Your task to perform on an android device: open app "Paramount+ | Peak Streaming" (install if not already installed) and go to login screen Image 0: 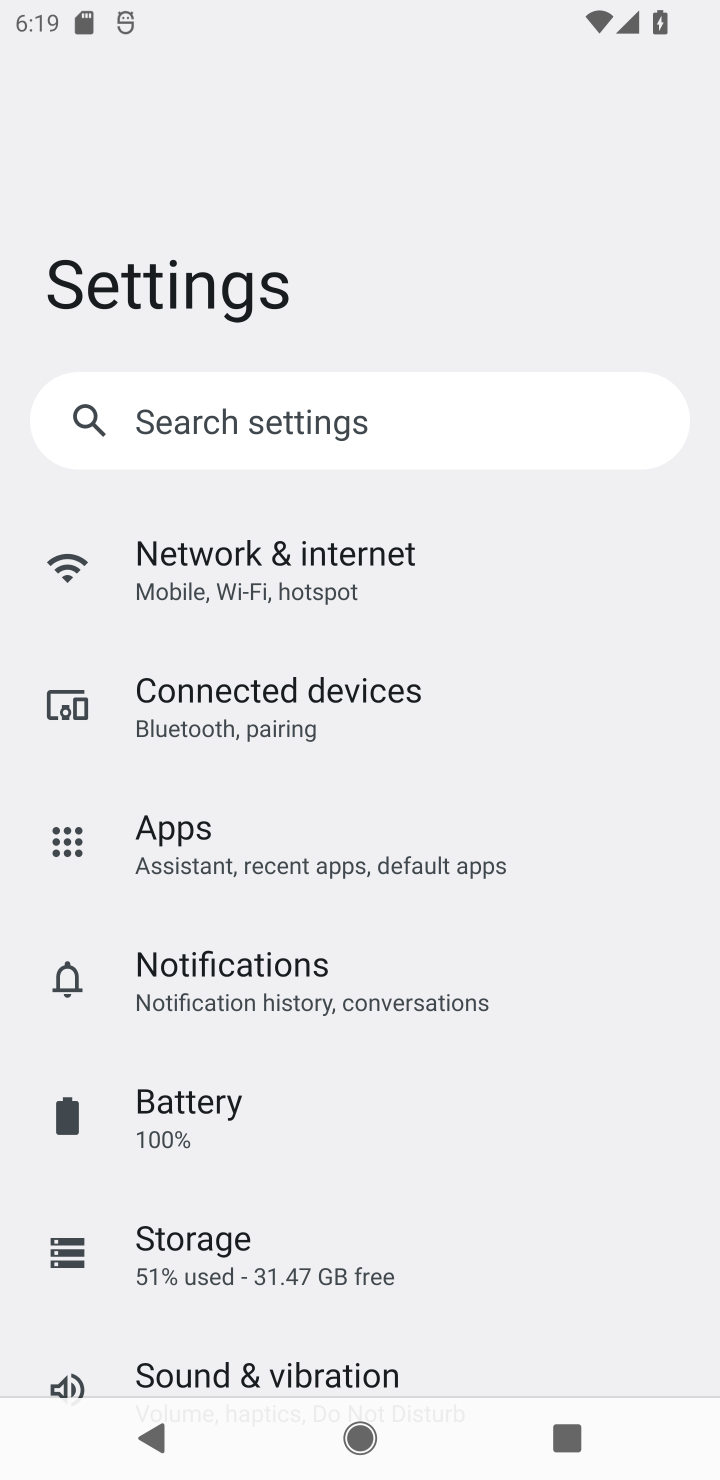
Step 0: press back button
Your task to perform on an android device: open app "Paramount+ | Peak Streaming" (install if not already installed) and go to login screen Image 1: 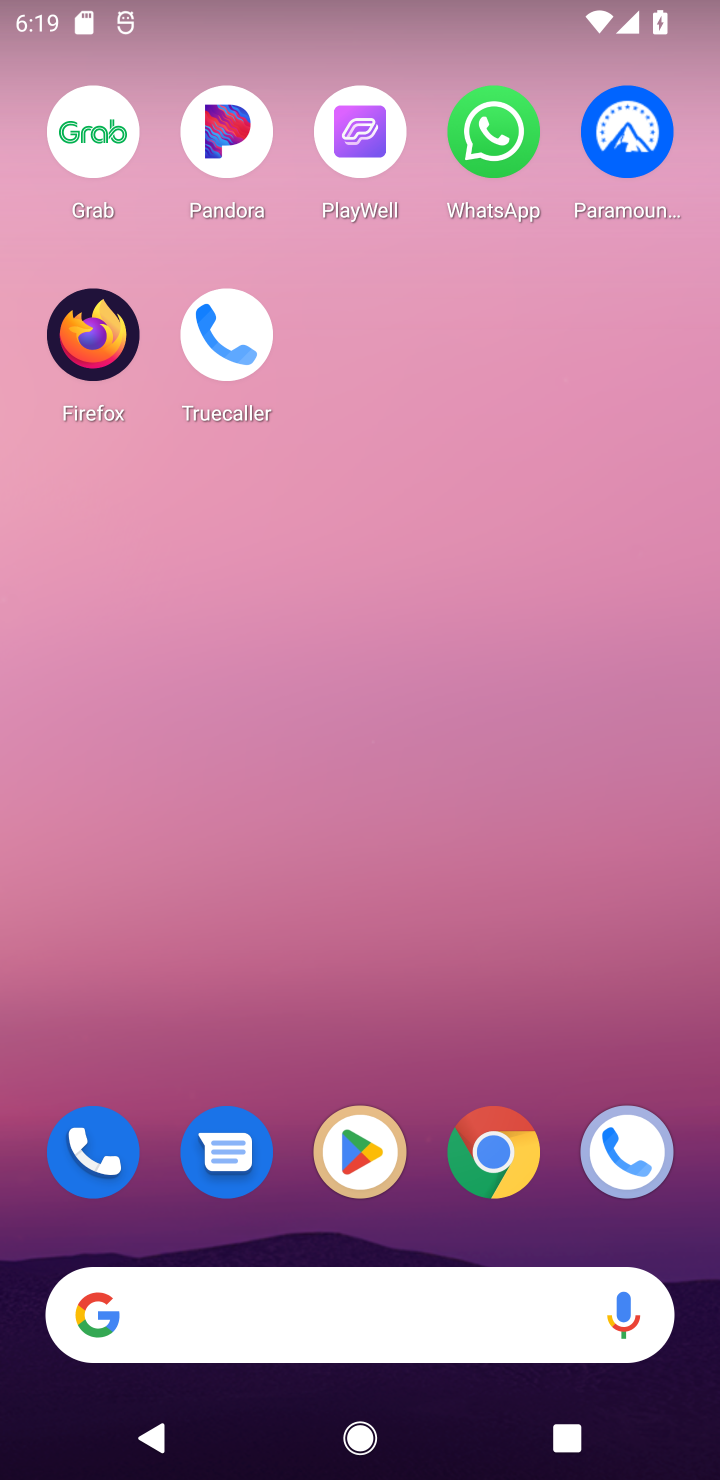
Step 1: click (371, 1159)
Your task to perform on an android device: open app "Paramount+ | Peak Streaming" (install if not already installed) and go to login screen Image 2: 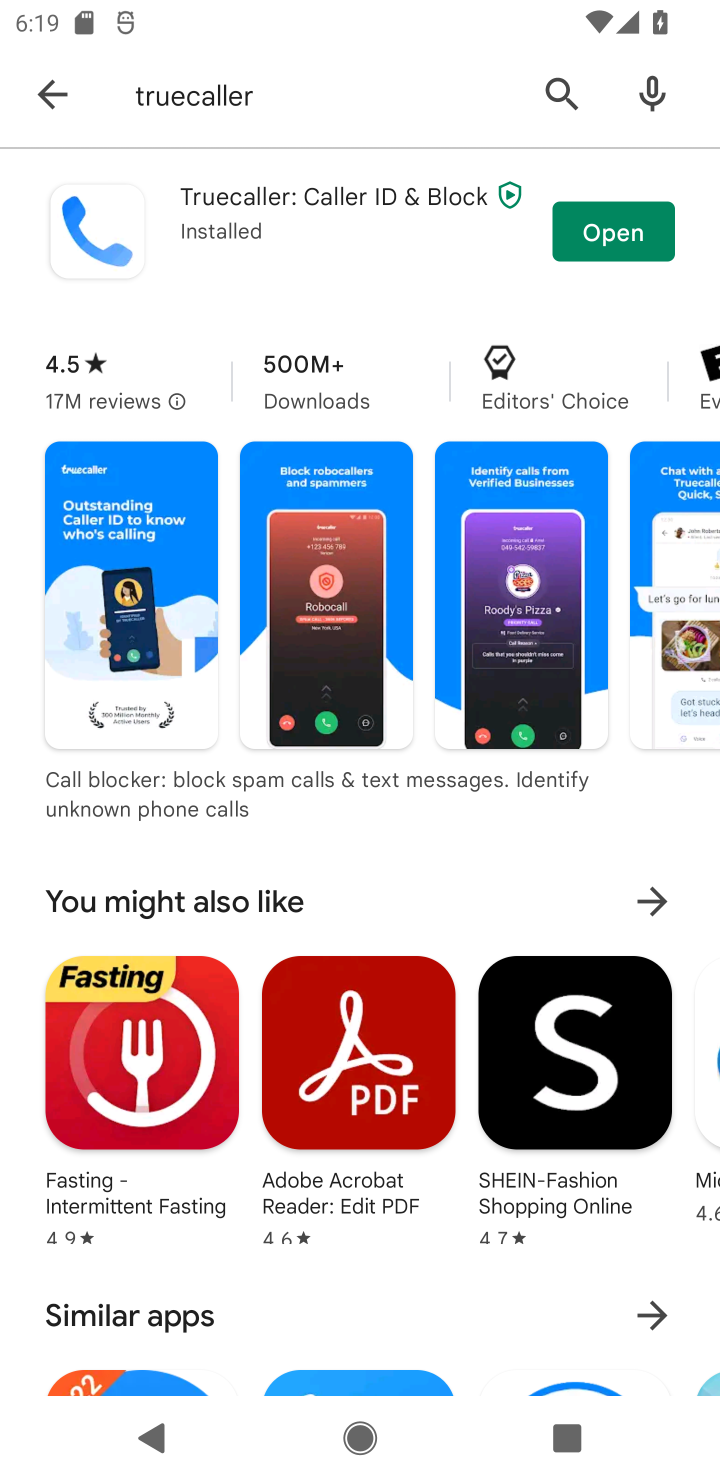
Step 2: click (557, 94)
Your task to perform on an android device: open app "Paramount+ | Peak Streaming" (install if not already installed) and go to login screen Image 3: 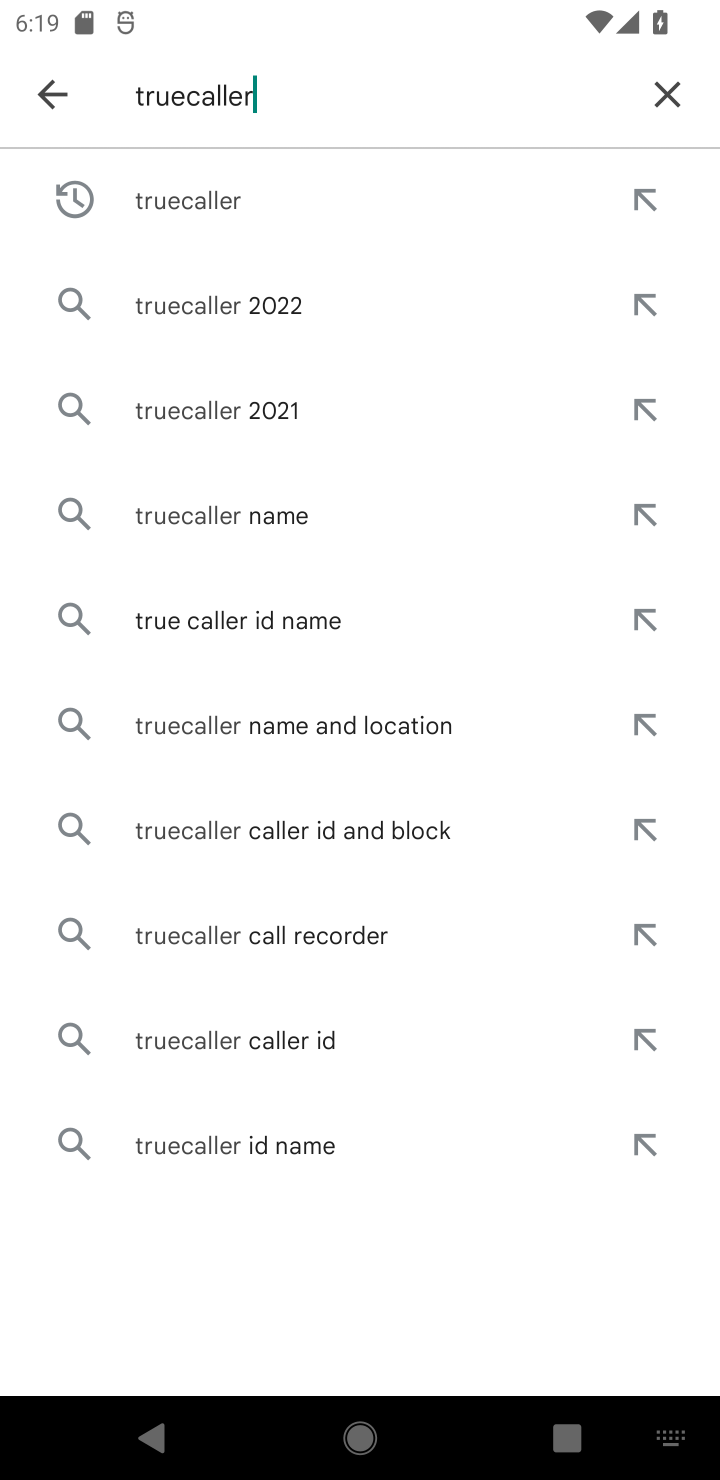
Step 3: click (668, 81)
Your task to perform on an android device: open app "Paramount+ | Peak Streaming" (install if not already installed) and go to login screen Image 4: 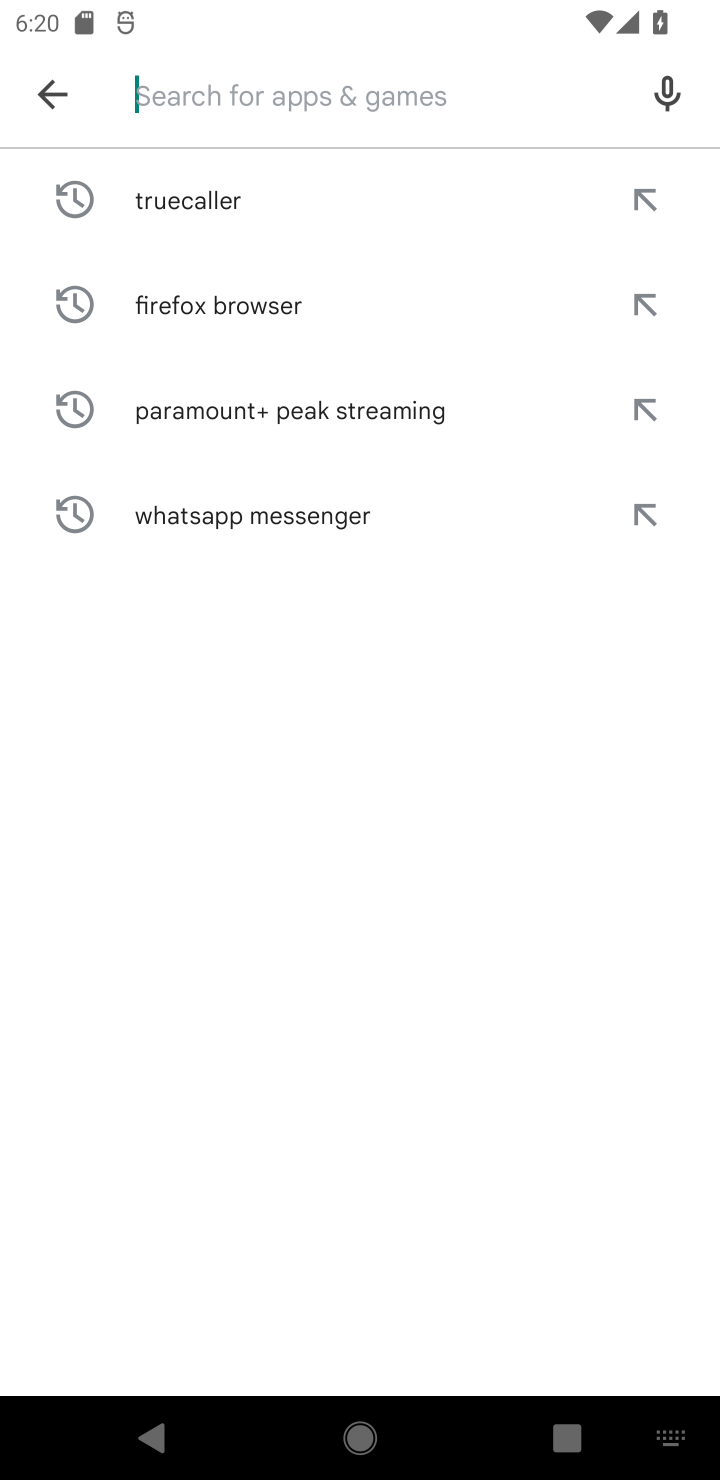
Step 4: click (288, 73)
Your task to perform on an android device: open app "Paramount+ | Peak Streaming" (install if not already installed) and go to login screen Image 5: 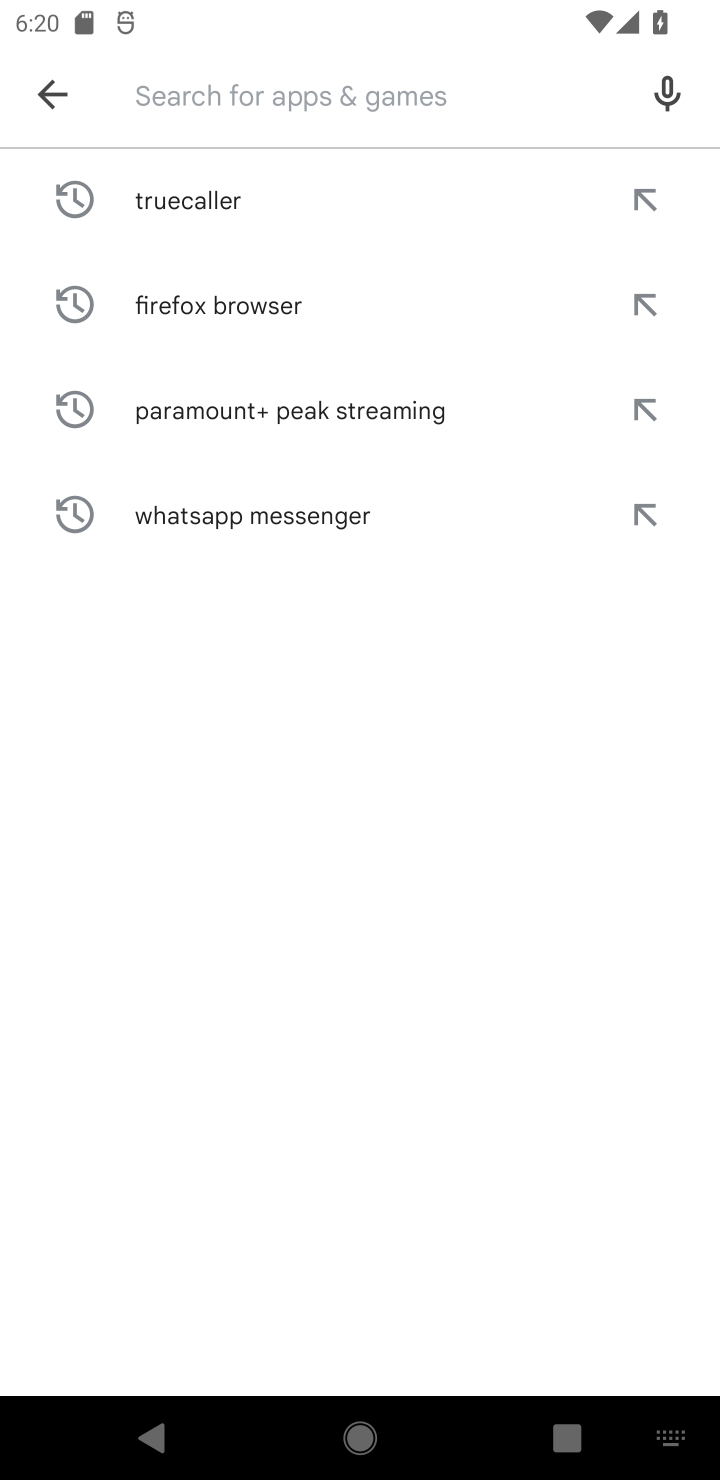
Step 5: type "Paramount+"
Your task to perform on an android device: open app "Paramount+ | Peak Streaming" (install if not already installed) and go to login screen Image 6: 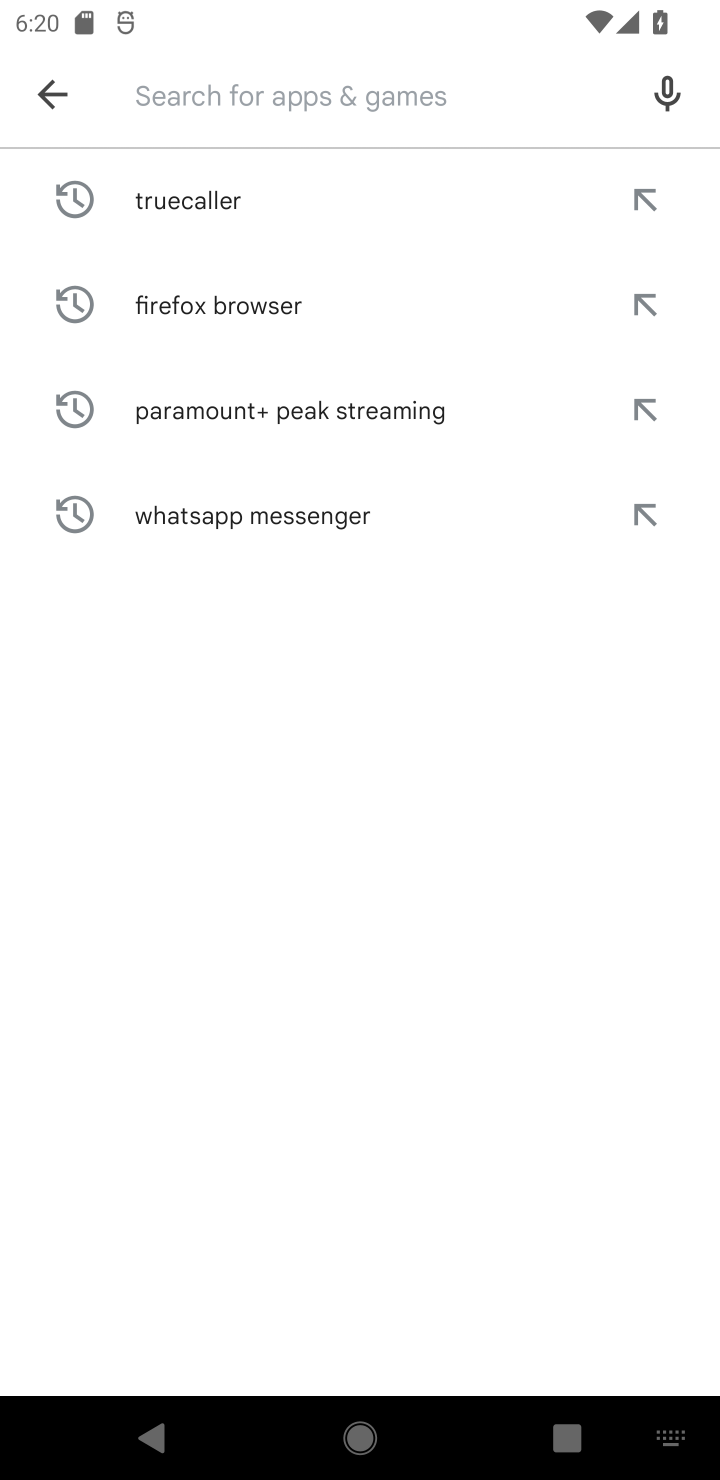
Step 6: click (293, 963)
Your task to perform on an android device: open app "Paramount+ | Peak Streaming" (install if not already installed) and go to login screen Image 7: 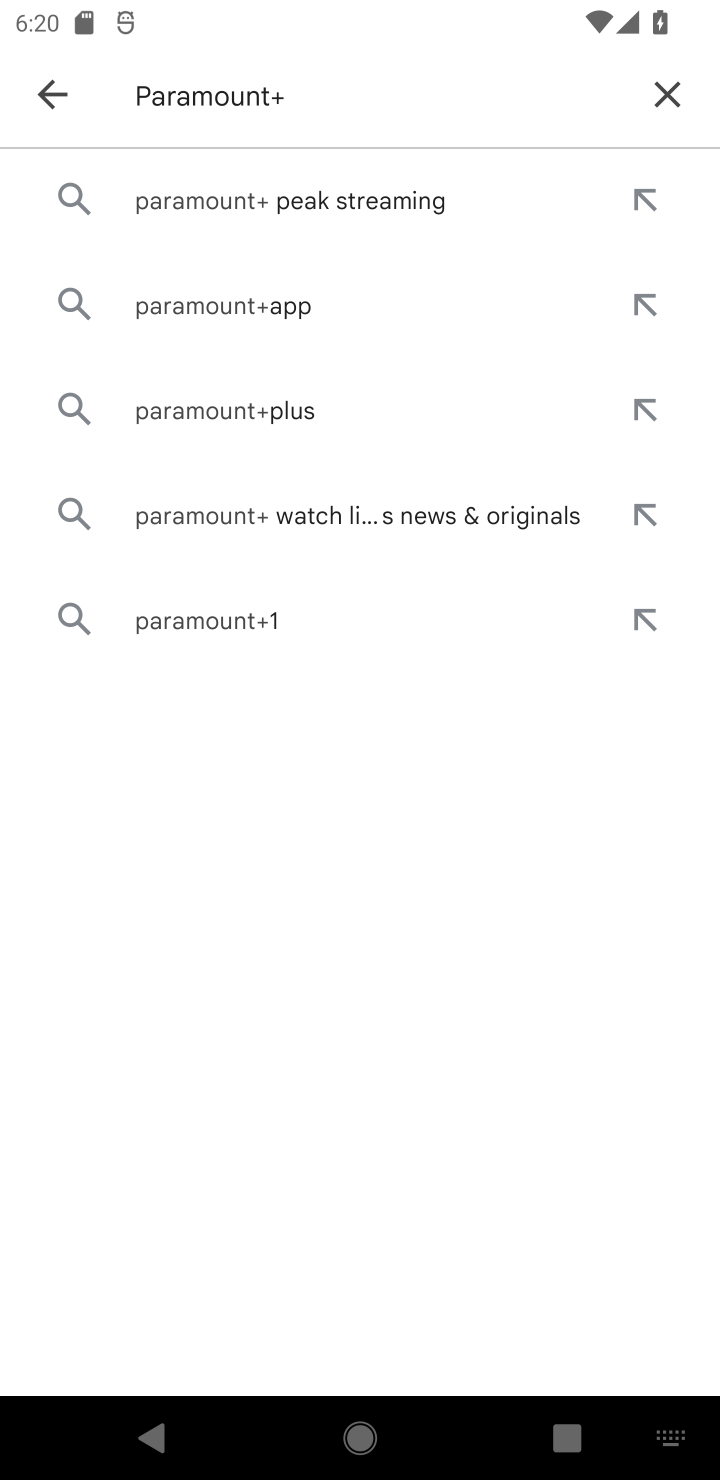
Step 7: click (268, 202)
Your task to perform on an android device: open app "Paramount+ | Peak Streaming" (install if not already installed) and go to login screen Image 8: 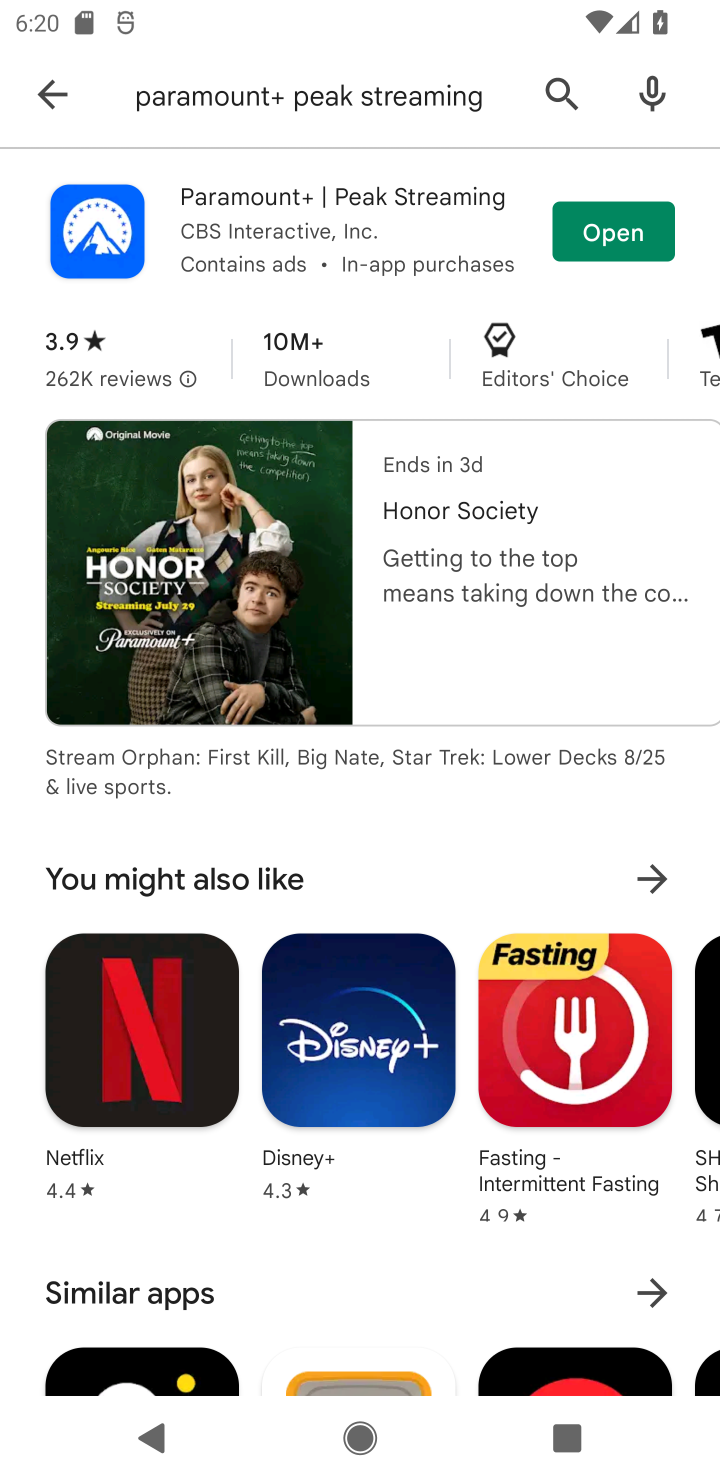
Step 8: click (621, 244)
Your task to perform on an android device: open app "Paramount+ | Peak Streaming" (install if not already installed) and go to login screen Image 9: 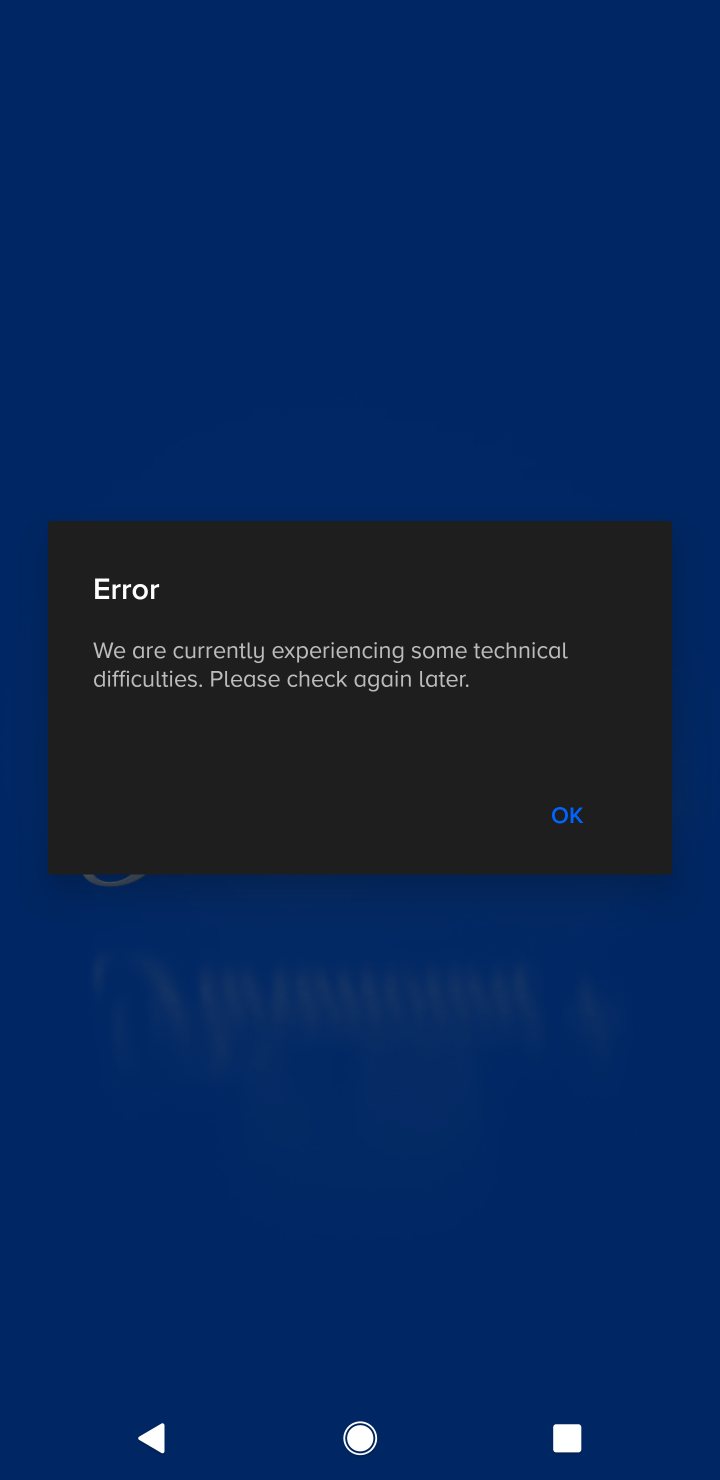
Step 9: task complete